Your task to perform on an android device: Open Chrome and go to the settings page Image 0: 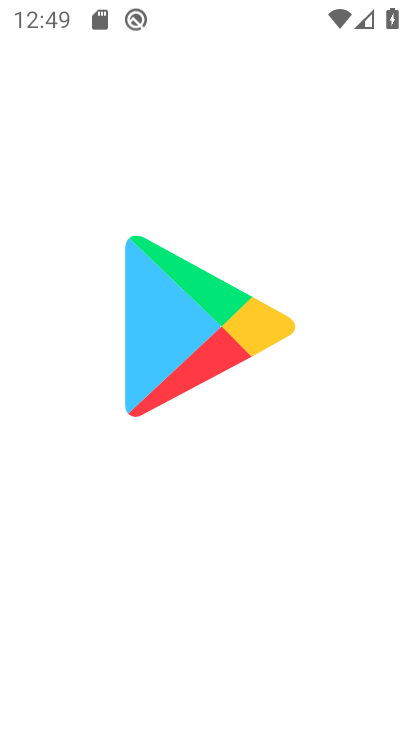
Step 0: click (171, 623)
Your task to perform on an android device: Open Chrome and go to the settings page Image 1: 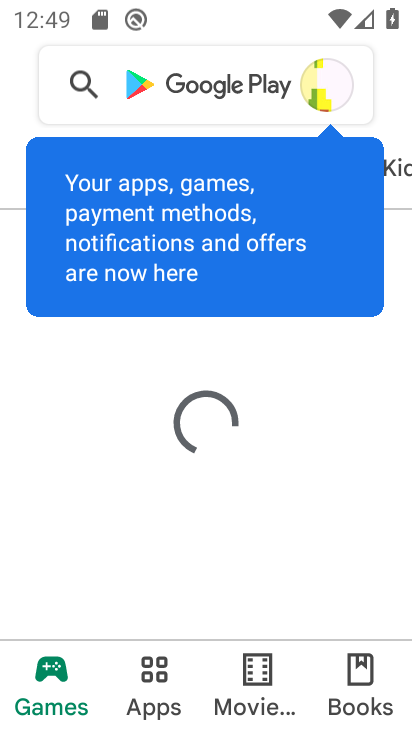
Step 1: press home button
Your task to perform on an android device: Open Chrome and go to the settings page Image 2: 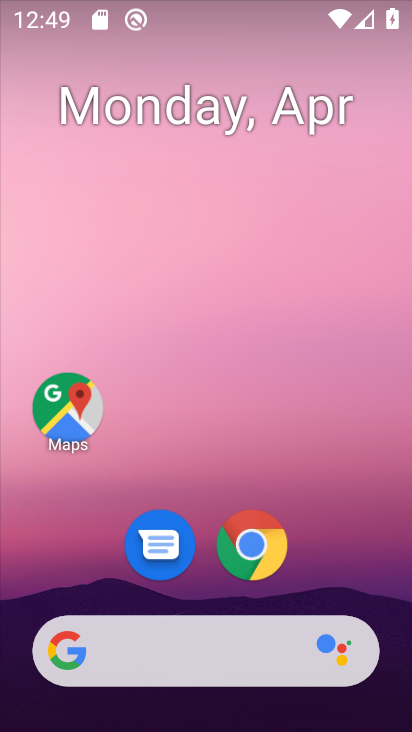
Step 2: click (255, 551)
Your task to perform on an android device: Open Chrome and go to the settings page Image 3: 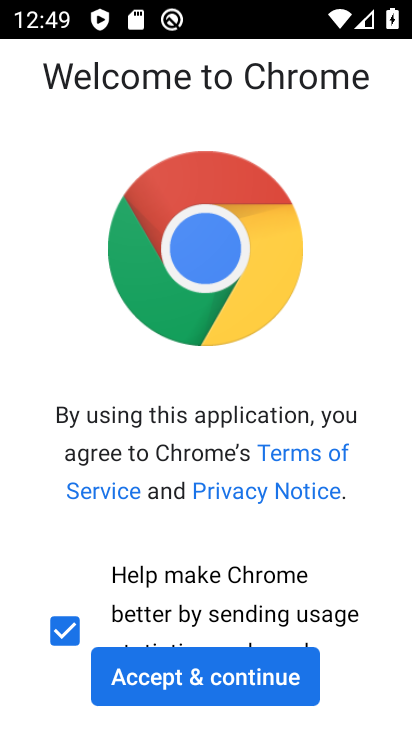
Step 3: click (140, 684)
Your task to perform on an android device: Open Chrome and go to the settings page Image 4: 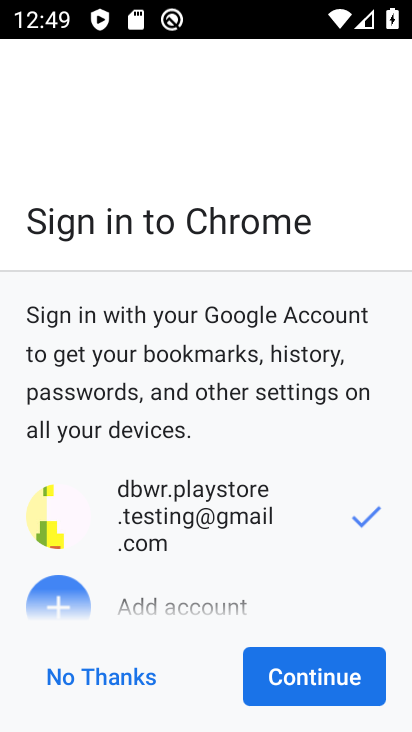
Step 4: click (366, 671)
Your task to perform on an android device: Open Chrome and go to the settings page Image 5: 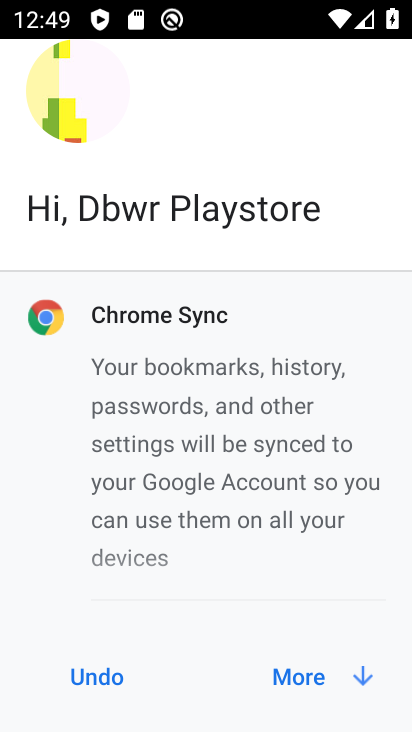
Step 5: click (366, 671)
Your task to perform on an android device: Open Chrome and go to the settings page Image 6: 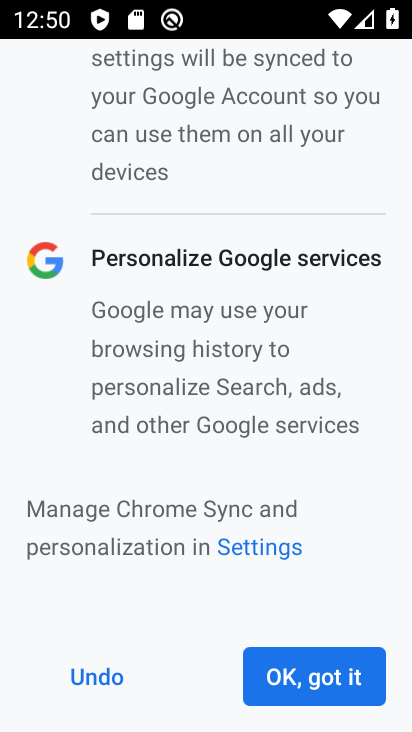
Step 6: click (366, 671)
Your task to perform on an android device: Open Chrome and go to the settings page Image 7: 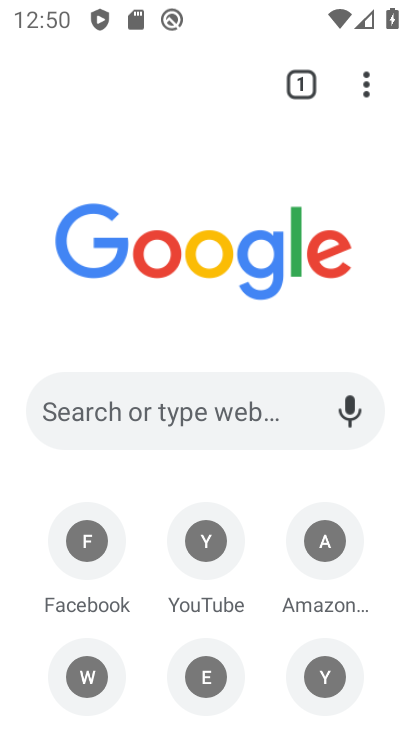
Step 7: click (364, 94)
Your task to perform on an android device: Open Chrome and go to the settings page Image 8: 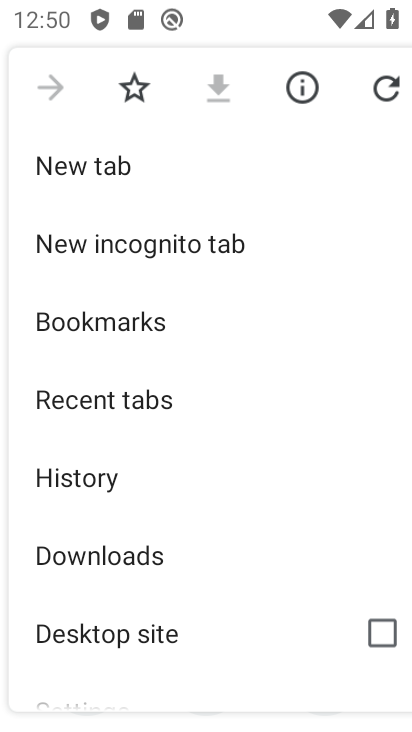
Step 8: drag from (87, 660) to (123, 173)
Your task to perform on an android device: Open Chrome and go to the settings page Image 9: 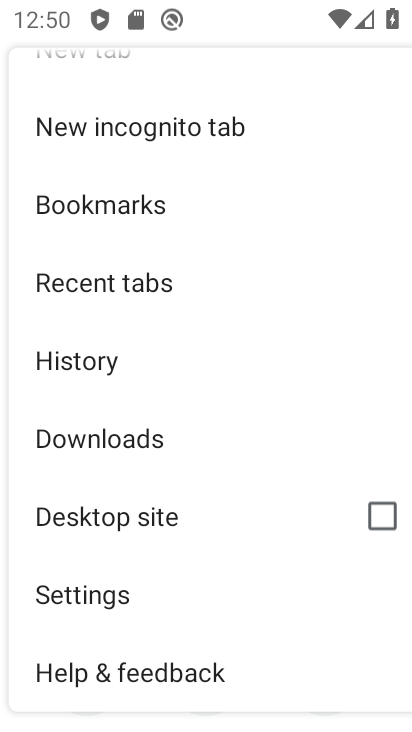
Step 9: click (95, 601)
Your task to perform on an android device: Open Chrome and go to the settings page Image 10: 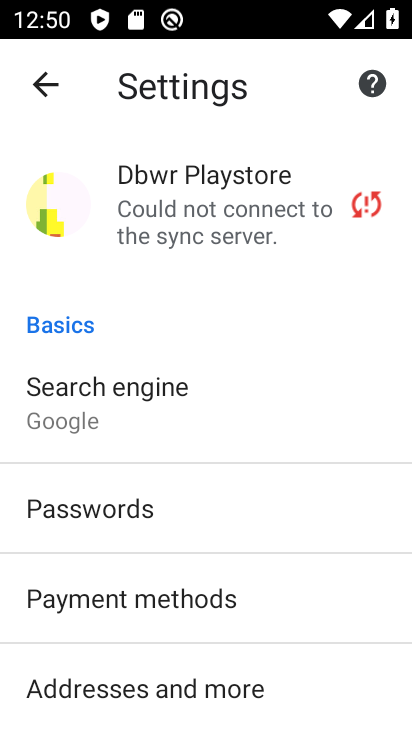
Step 10: task complete